Your task to perform on an android device: Open privacy settings Image 0: 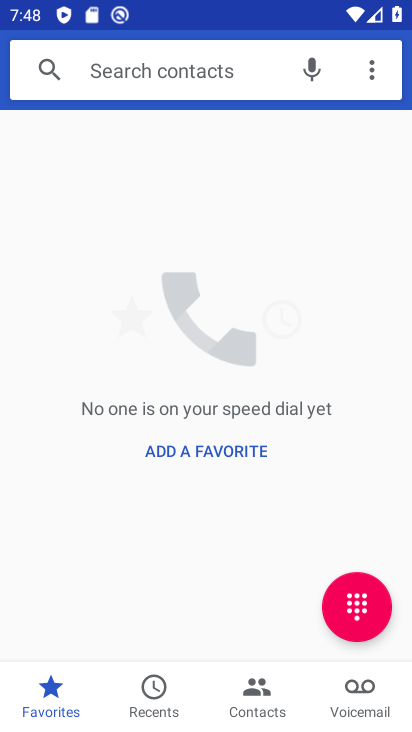
Step 0: press home button
Your task to perform on an android device: Open privacy settings Image 1: 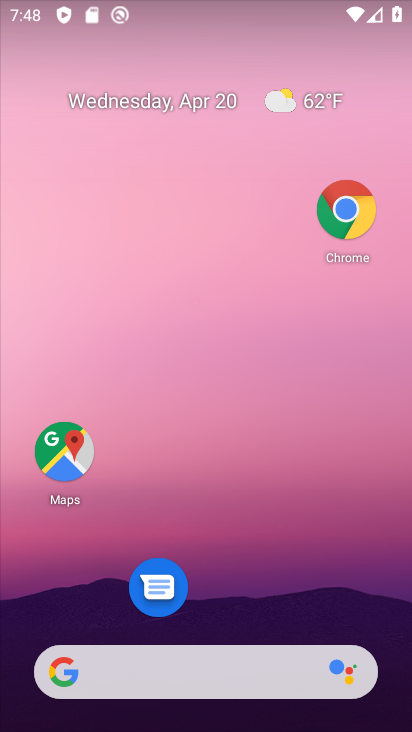
Step 1: drag from (237, 624) to (26, 69)
Your task to perform on an android device: Open privacy settings Image 2: 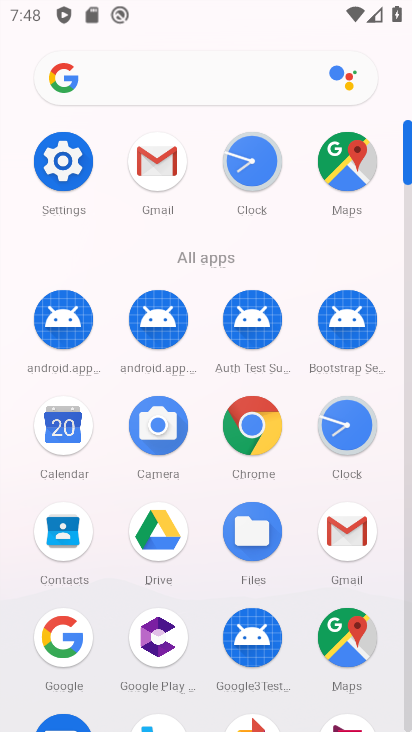
Step 2: click (65, 184)
Your task to perform on an android device: Open privacy settings Image 3: 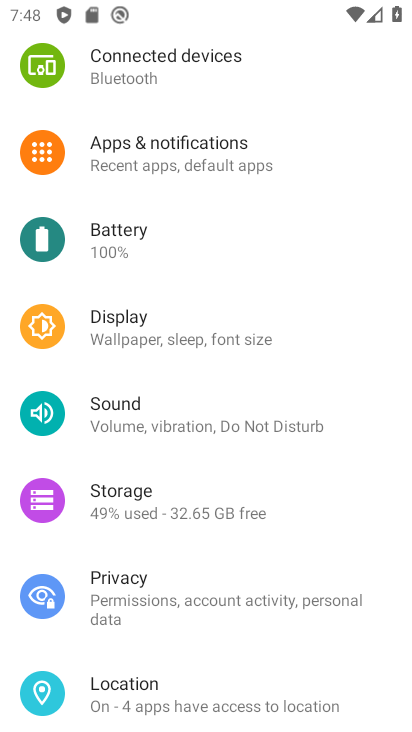
Step 3: click (121, 594)
Your task to perform on an android device: Open privacy settings Image 4: 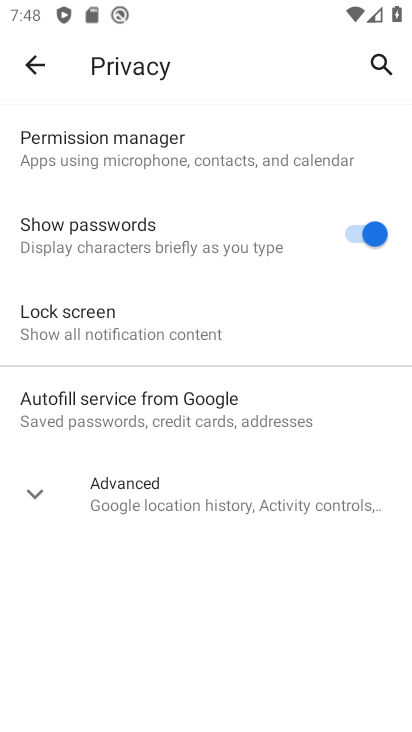
Step 4: task complete